Your task to perform on an android device: turn on showing notifications on the lock screen Image 0: 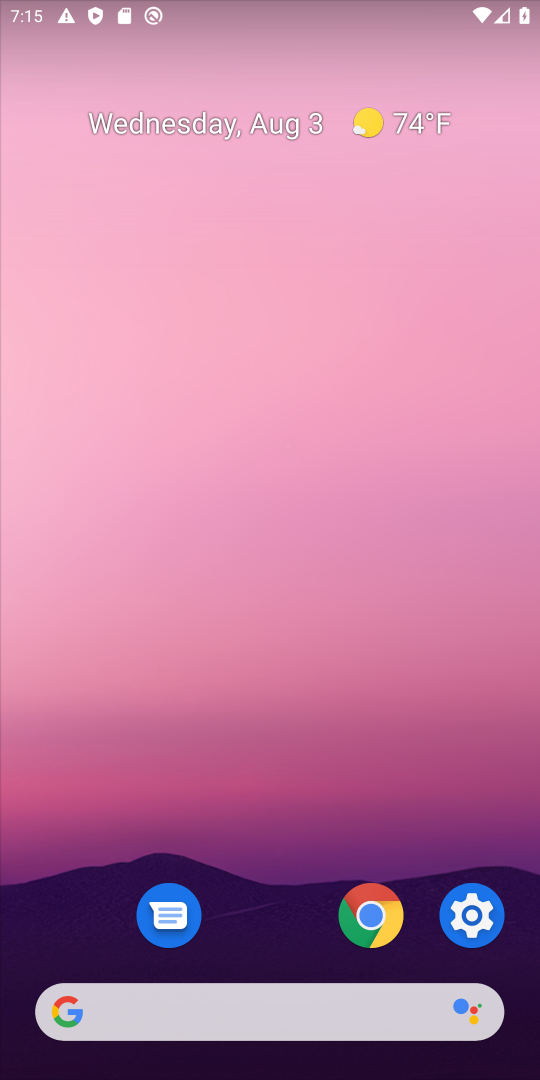
Step 0: drag from (385, 1019) to (247, 273)
Your task to perform on an android device: turn on showing notifications on the lock screen Image 1: 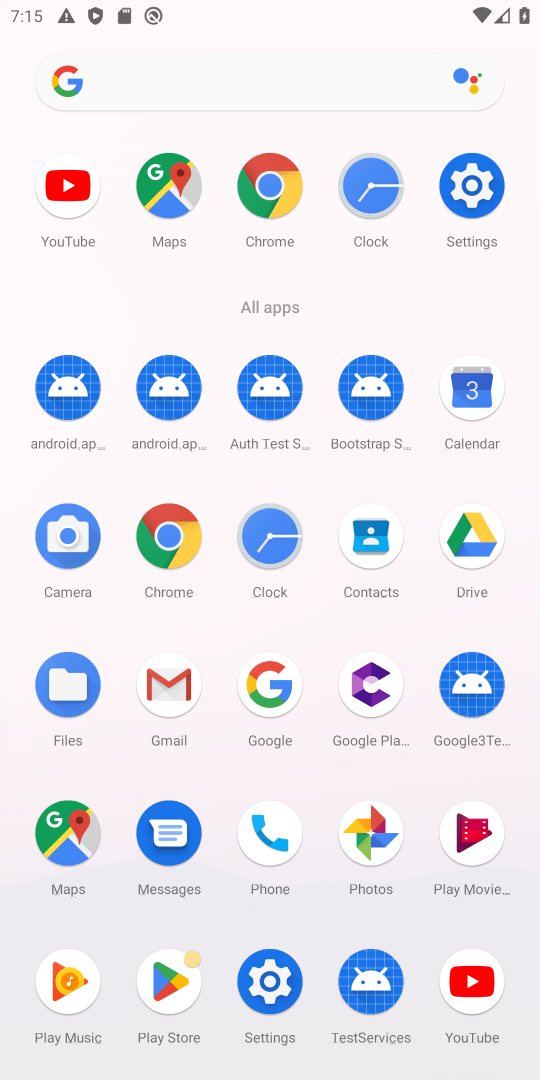
Step 1: click (471, 183)
Your task to perform on an android device: turn on showing notifications on the lock screen Image 2: 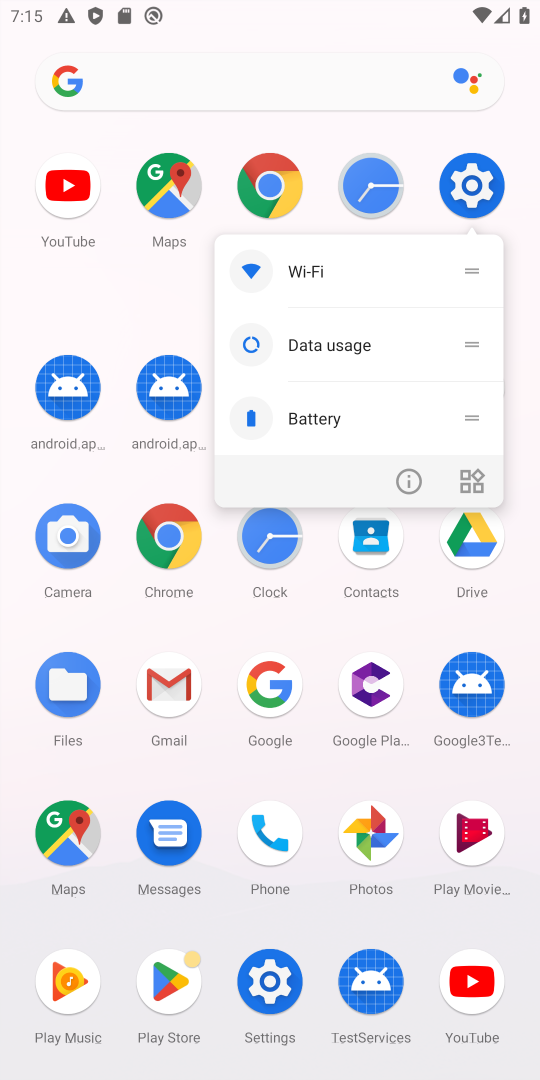
Step 2: click (467, 189)
Your task to perform on an android device: turn on showing notifications on the lock screen Image 3: 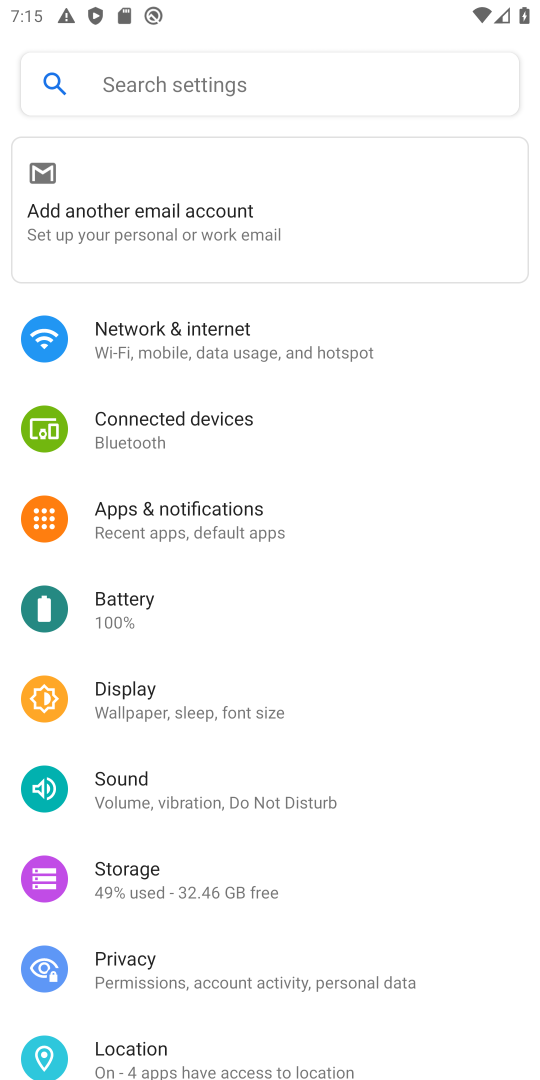
Step 3: click (174, 86)
Your task to perform on an android device: turn on showing notifications on the lock screen Image 4: 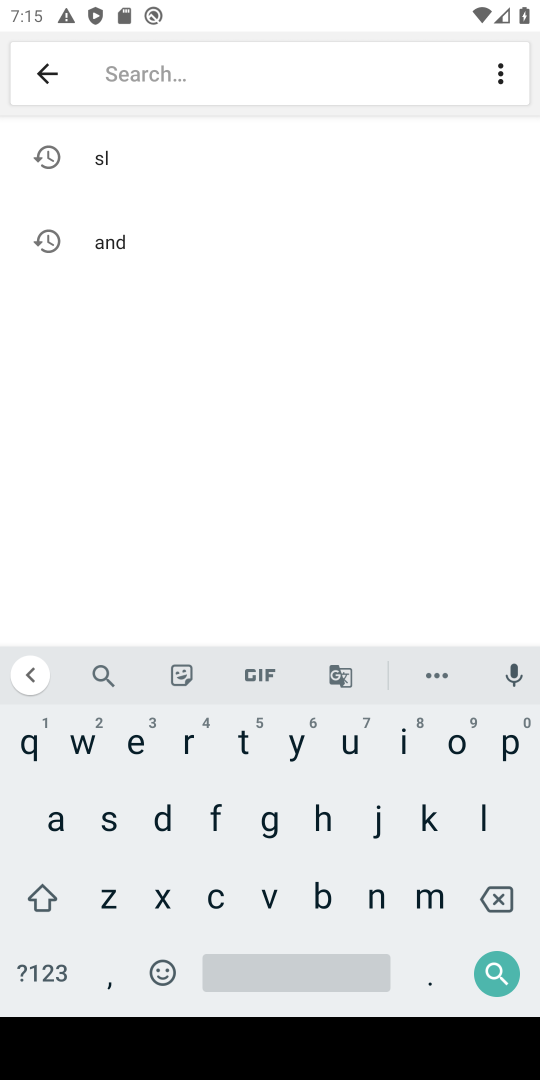
Step 4: click (374, 883)
Your task to perform on an android device: turn on showing notifications on the lock screen Image 5: 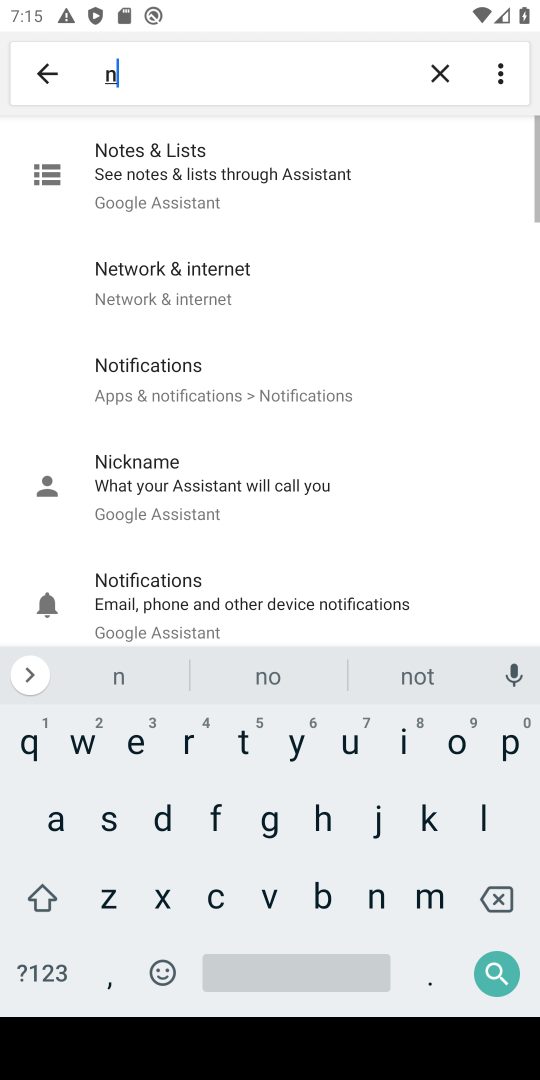
Step 5: click (452, 734)
Your task to perform on an android device: turn on showing notifications on the lock screen Image 6: 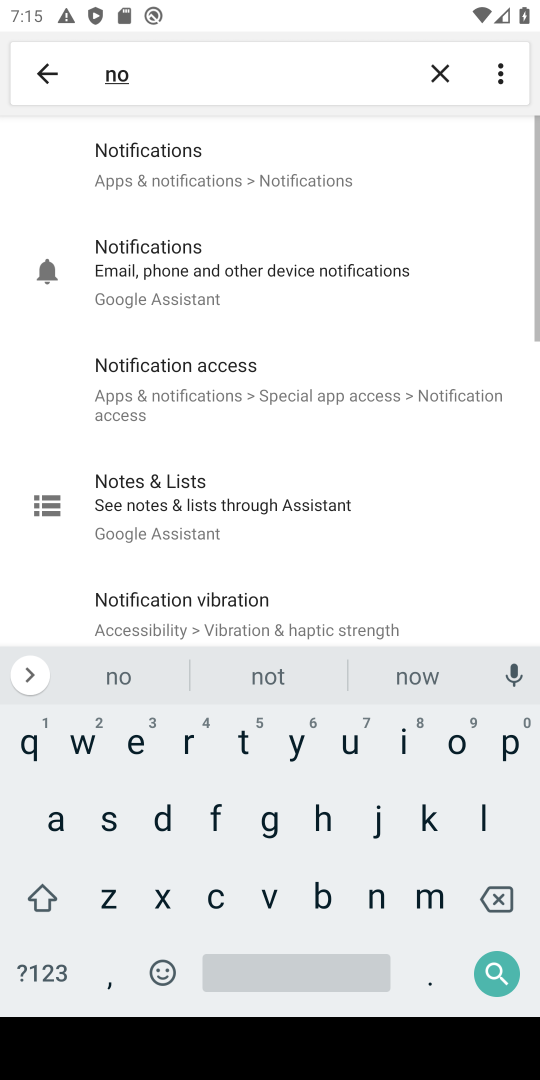
Step 6: click (241, 159)
Your task to perform on an android device: turn on showing notifications on the lock screen Image 7: 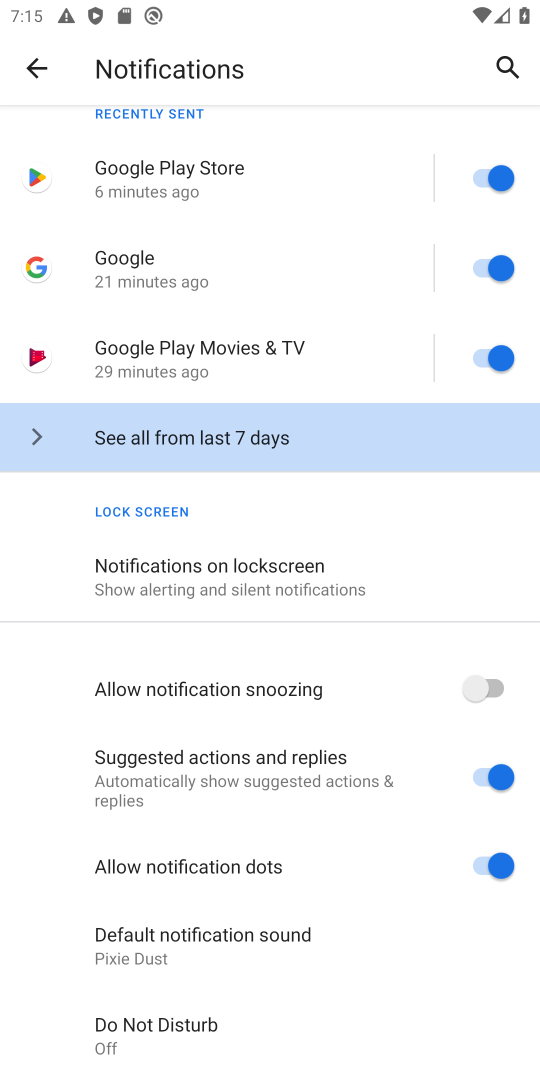
Step 7: click (191, 573)
Your task to perform on an android device: turn on showing notifications on the lock screen Image 8: 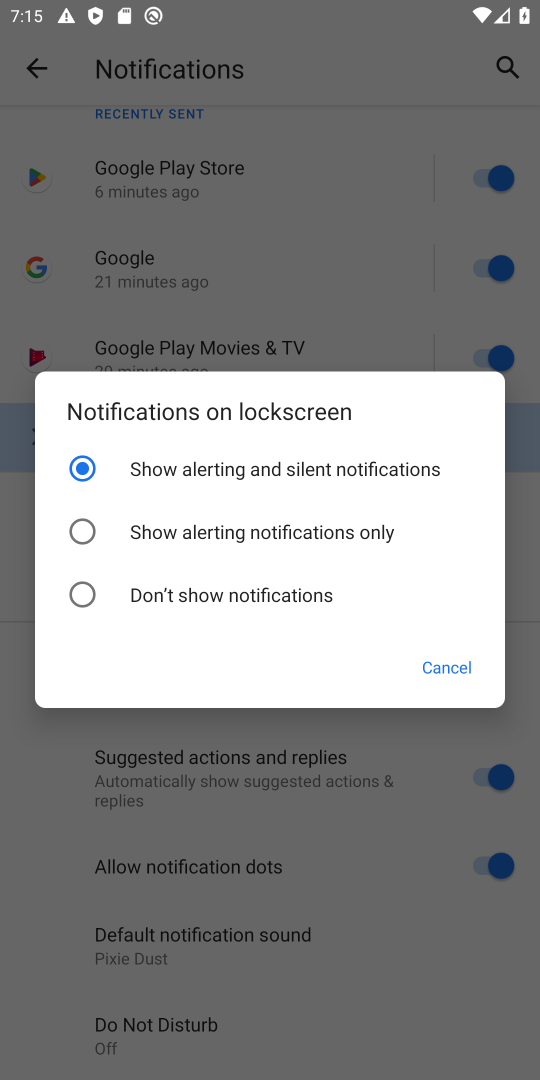
Step 8: task complete